Your task to perform on an android device: Open Google Maps Image 0: 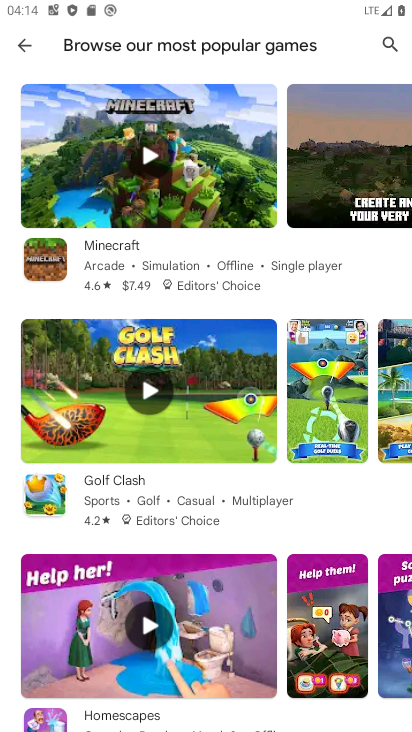
Step 0: press home button
Your task to perform on an android device: Open Google Maps Image 1: 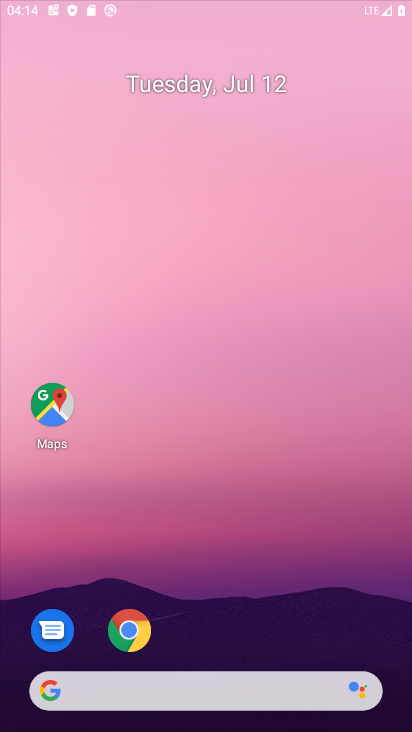
Step 1: drag from (258, 701) to (253, 10)
Your task to perform on an android device: Open Google Maps Image 2: 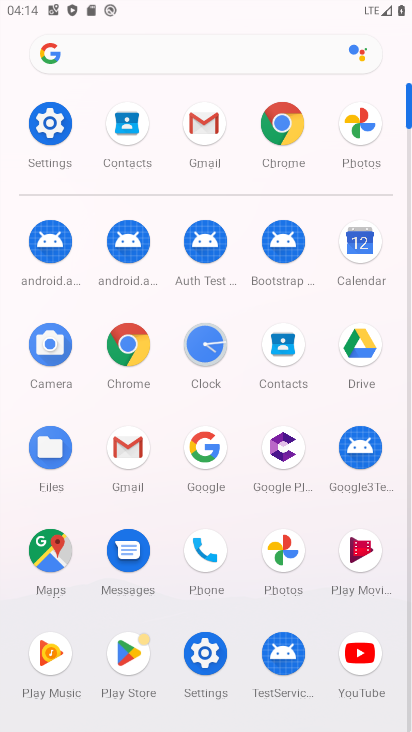
Step 2: click (52, 569)
Your task to perform on an android device: Open Google Maps Image 3: 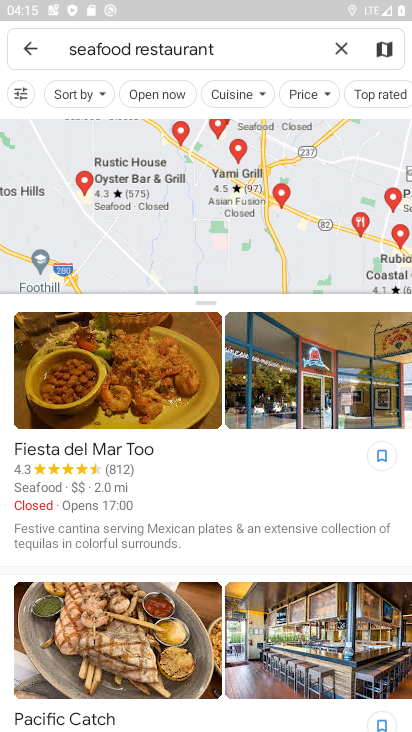
Step 3: task complete